Your task to perform on an android device: visit the assistant section in the google photos Image 0: 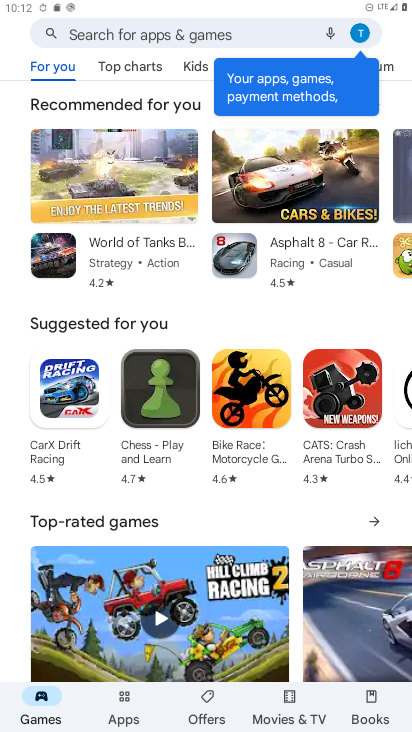
Step 0: press home button
Your task to perform on an android device: visit the assistant section in the google photos Image 1: 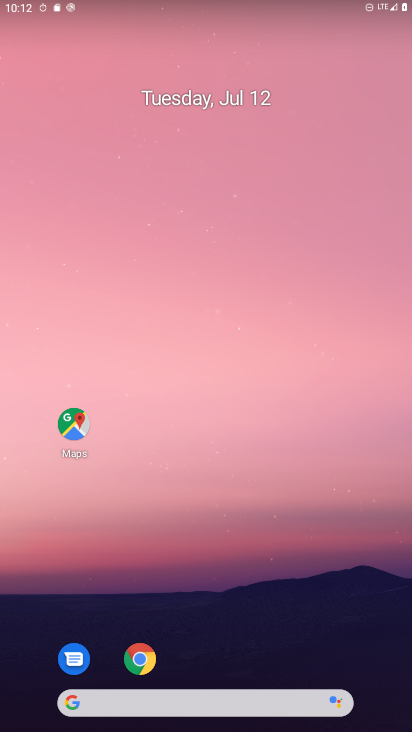
Step 1: drag from (362, 616) to (203, 38)
Your task to perform on an android device: visit the assistant section in the google photos Image 2: 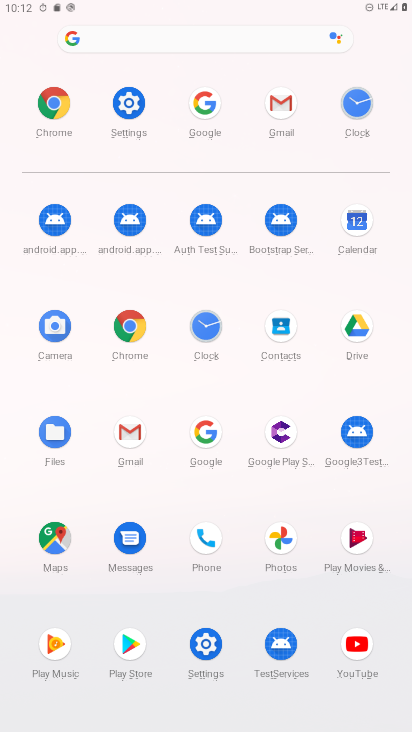
Step 2: click (277, 555)
Your task to perform on an android device: visit the assistant section in the google photos Image 3: 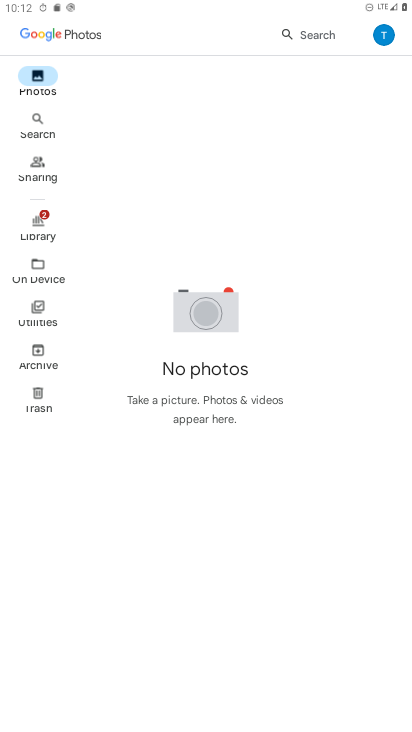
Step 3: task complete